Your task to perform on an android device: turn off translation in the chrome app Image 0: 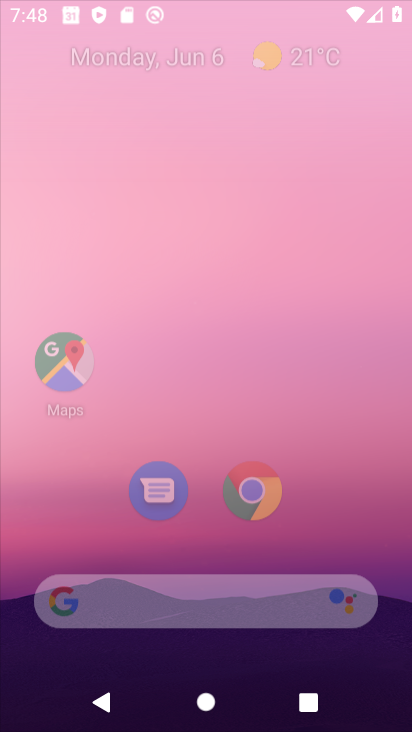
Step 0: drag from (208, 525) to (217, 191)
Your task to perform on an android device: turn off translation in the chrome app Image 1: 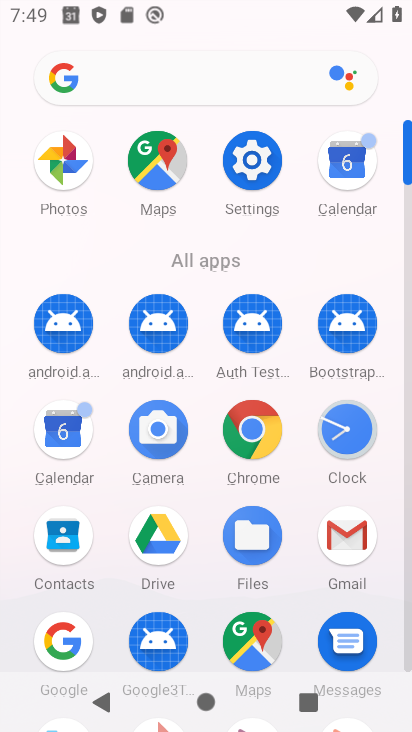
Step 1: click (246, 450)
Your task to perform on an android device: turn off translation in the chrome app Image 2: 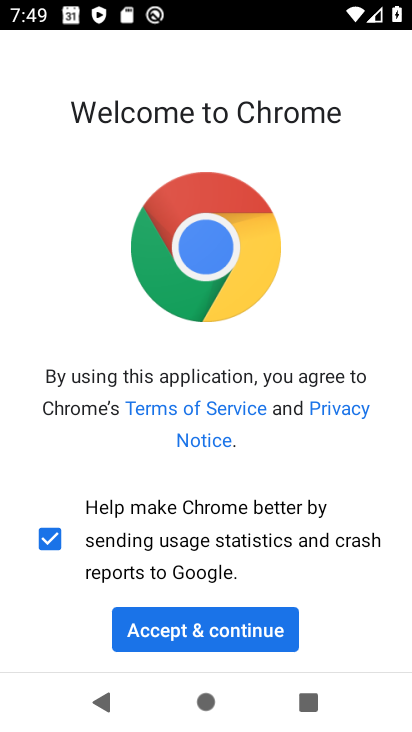
Step 2: click (212, 623)
Your task to perform on an android device: turn off translation in the chrome app Image 3: 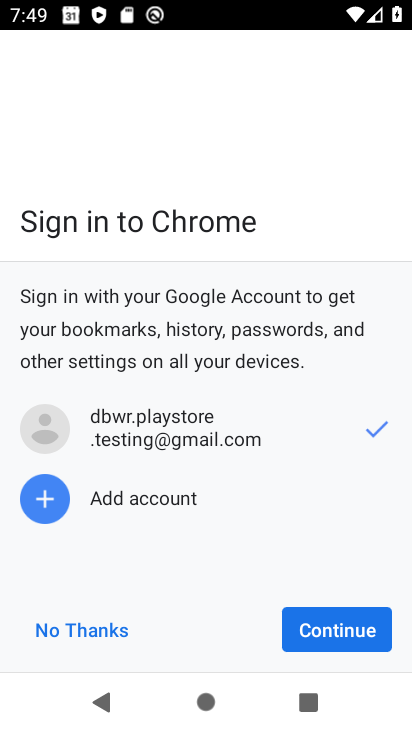
Step 3: click (336, 623)
Your task to perform on an android device: turn off translation in the chrome app Image 4: 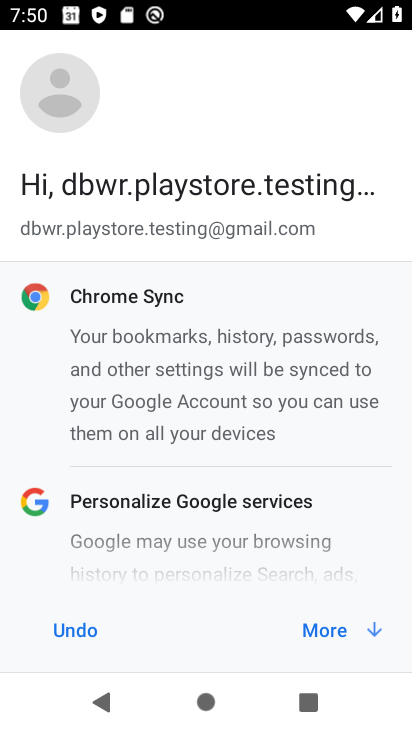
Step 4: click (333, 627)
Your task to perform on an android device: turn off translation in the chrome app Image 5: 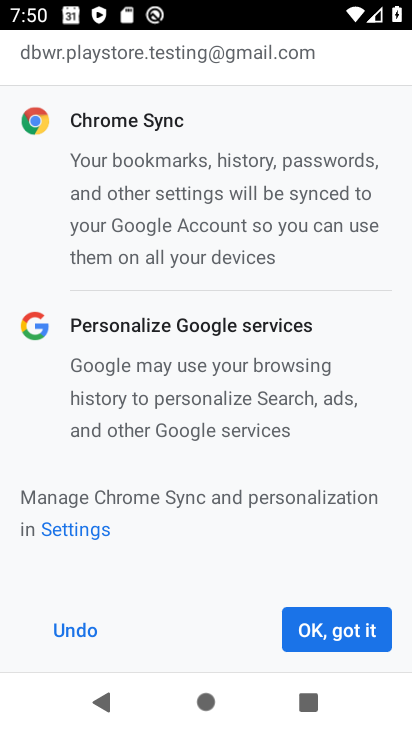
Step 5: click (327, 623)
Your task to perform on an android device: turn off translation in the chrome app Image 6: 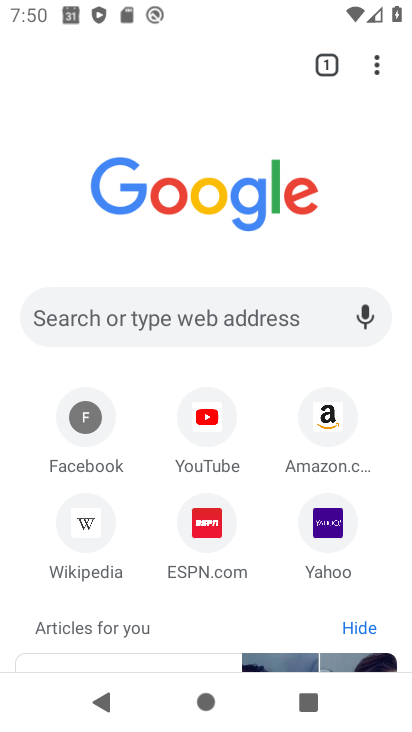
Step 6: click (381, 76)
Your task to perform on an android device: turn off translation in the chrome app Image 7: 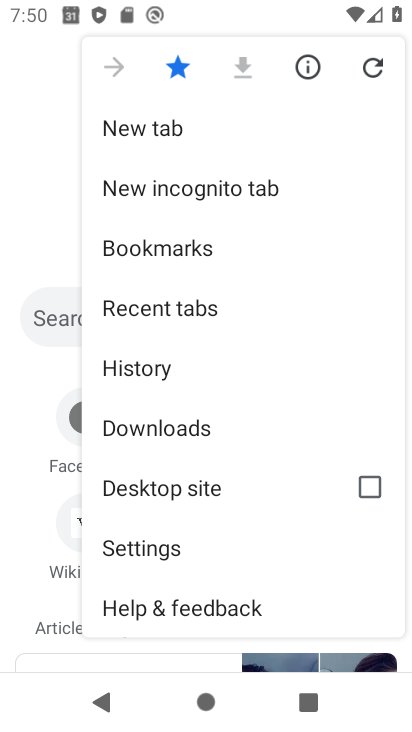
Step 7: task complete